Your task to perform on an android device: Open the calendar and show me this week's events? Image 0: 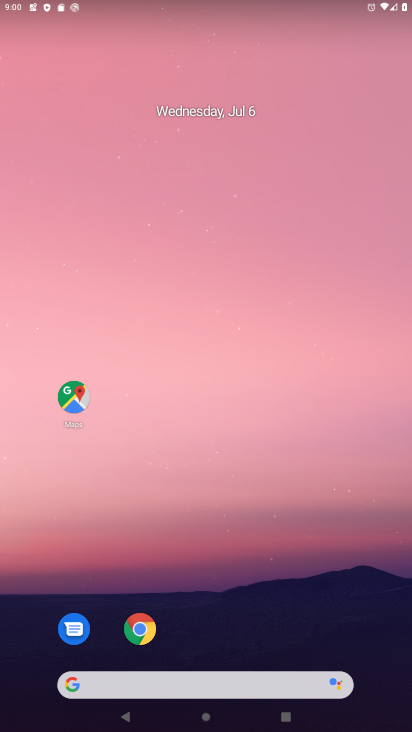
Step 0: drag from (19, 552) to (193, 113)
Your task to perform on an android device: Open the calendar and show me this week's events? Image 1: 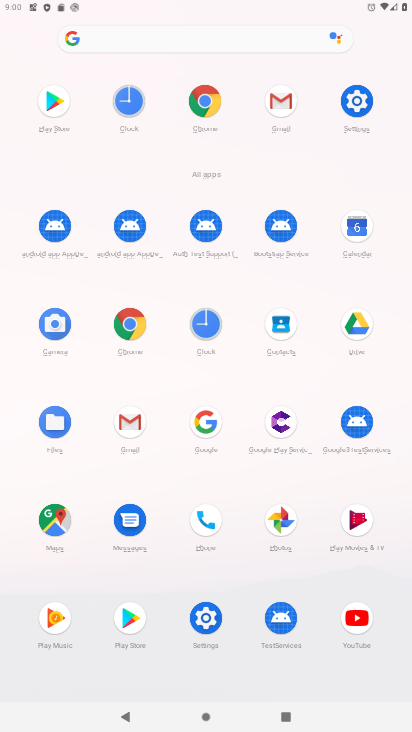
Step 1: click (356, 231)
Your task to perform on an android device: Open the calendar and show me this week's events? Image 2: 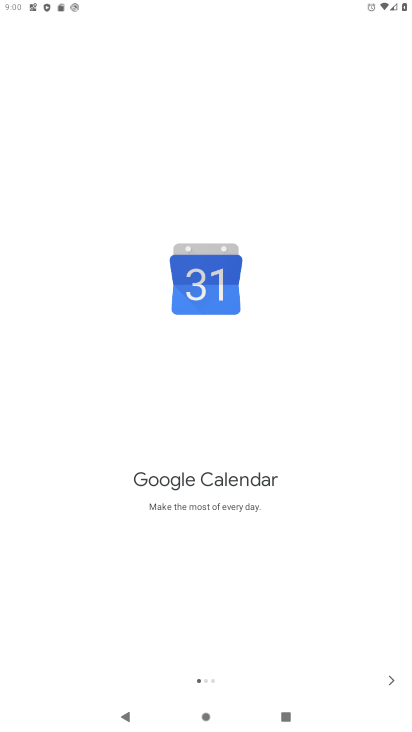
Step 2: click (387, 684)
Your task to perform on an android device: Open the calendar and show me this week's events? Image 3: 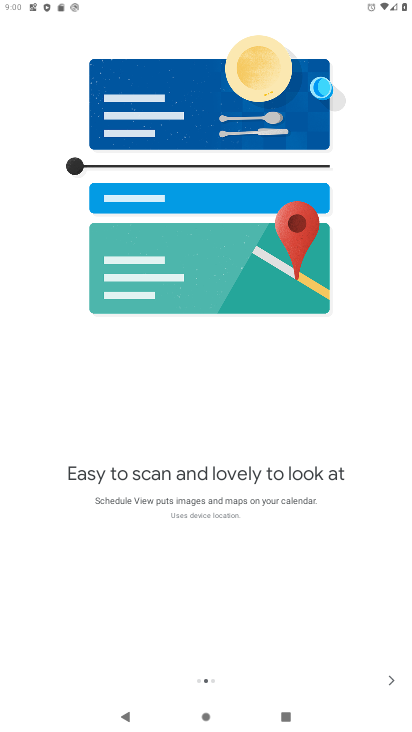
Step 3: click (387, 683)
Your task to perform on an android device: Open the calendar and show me this week's events? Image 4: 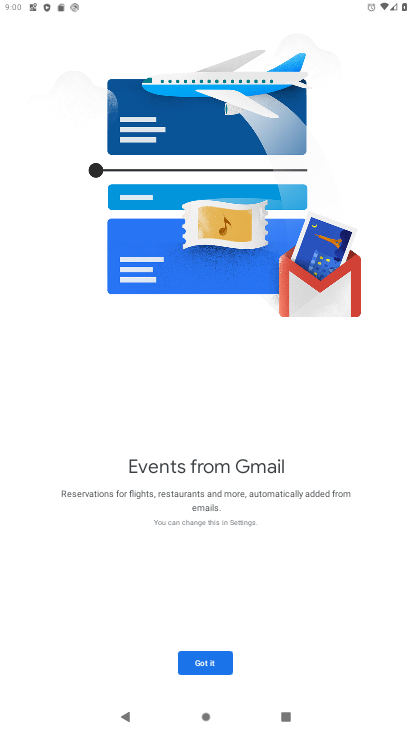
Step 4: click (207, 658)
Your task to perform on an android device: Open the calendar and show me this week's events? Image 5: 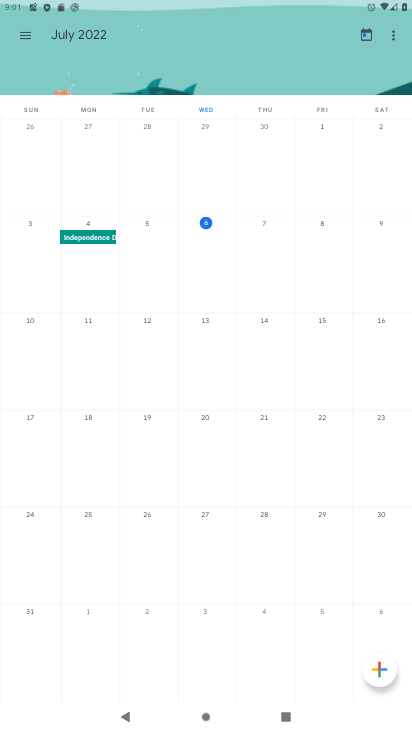
Step 5: click (25, 36)
Your task to perform on an android device: Open the calendar and show me this week's events? Image 6: 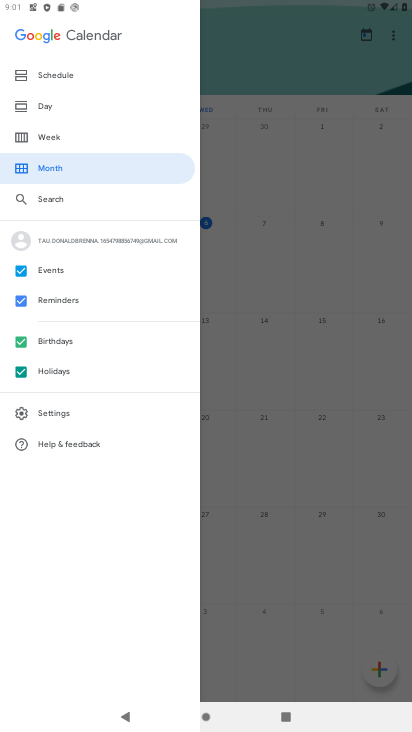
Step 6: click (98, 139)
Your task to perform on an android device: Open the calendar and show me this week's events? Image 7: 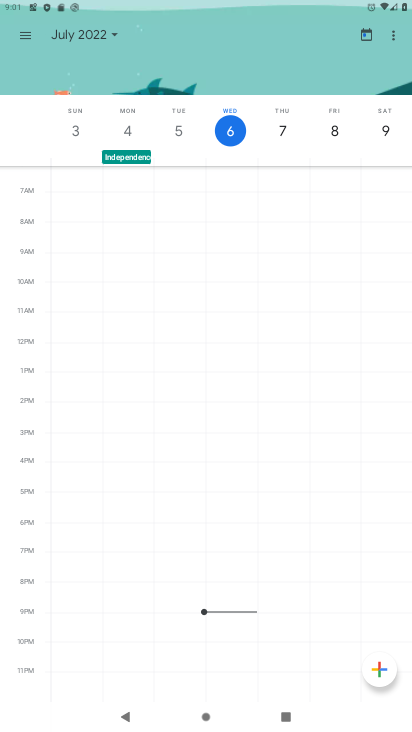
Step 7: task complete